Your task to perform on an android device: Go to ESPN.com Image 0: 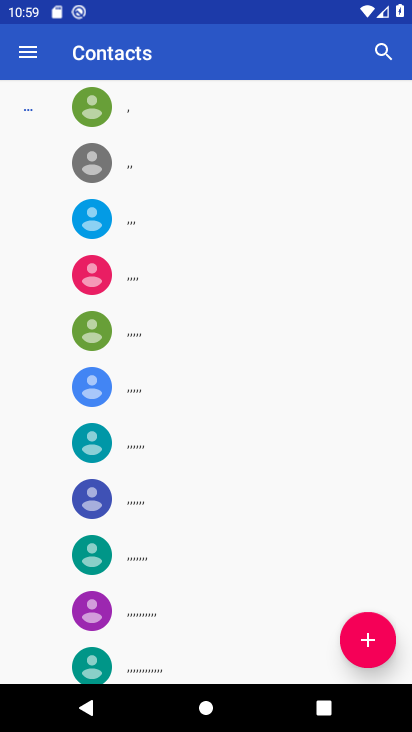
Step 0: press home button
Your task to perform on an android device: Go to ESPN.com Image 1: 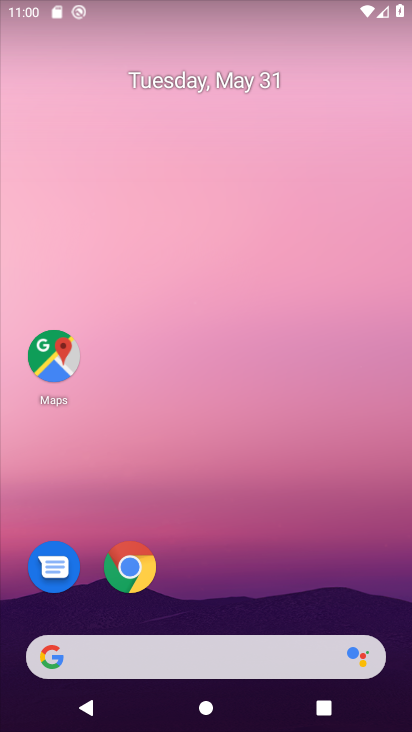
Step 1: click (128, 569)
Your task to perform on an android device: Go to ESPN.com Image 2: 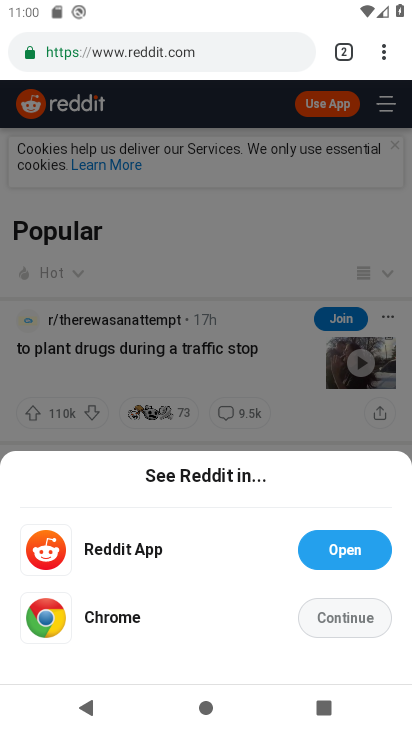
Step 2: click (352, 48)
Your task to perform on an android device: Go to ESPN.com Image 3: 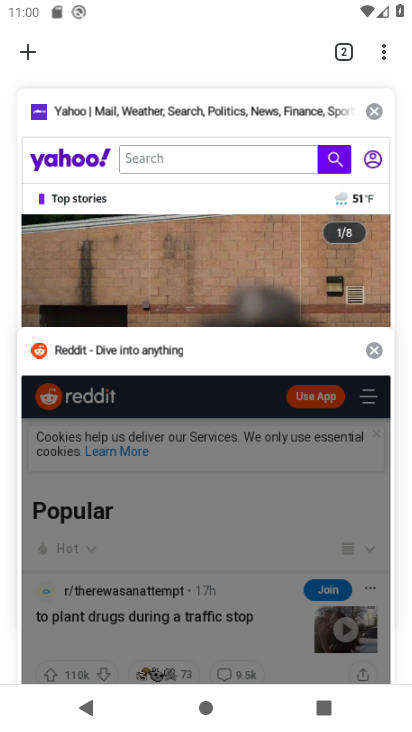
Step 3: click (36, 50)
Your task to perform on an android device: Go to ESPN.com Image 4: 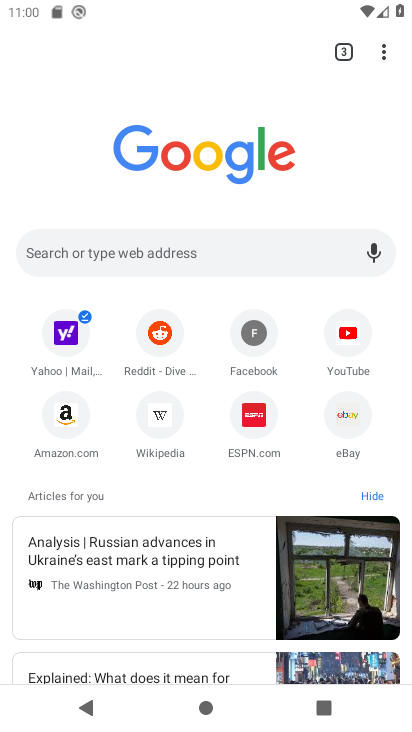
Step 4: click (279, 249)
Your task to perform on an android device: Go to ESPN.com Image 5: 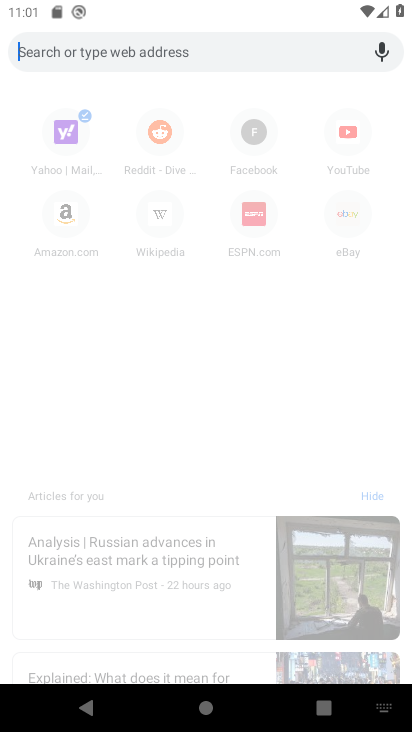
Step 5: type "espn"
Your task to perform on an android device: Go to ESPN.com Image 6: 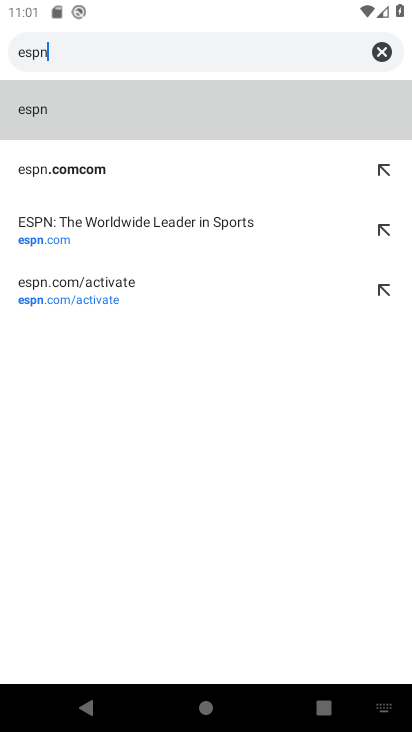
Step 6: click (111, 234)
Your task to perform on an android device: Go to ESPN.com Image 7: 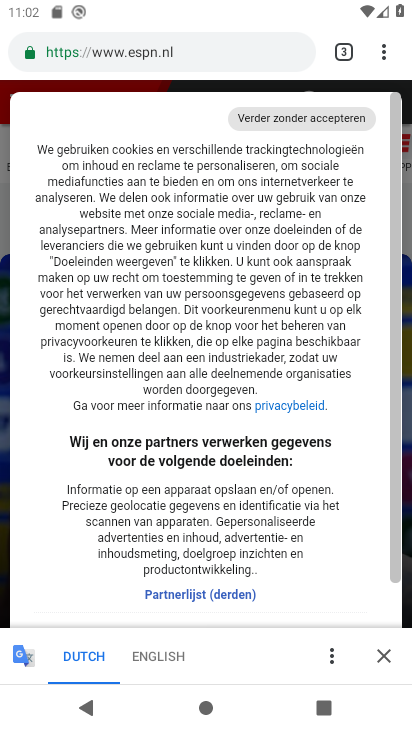
Step 7: task complete